Your task to perform on an android device: Open Android settings Image 0: 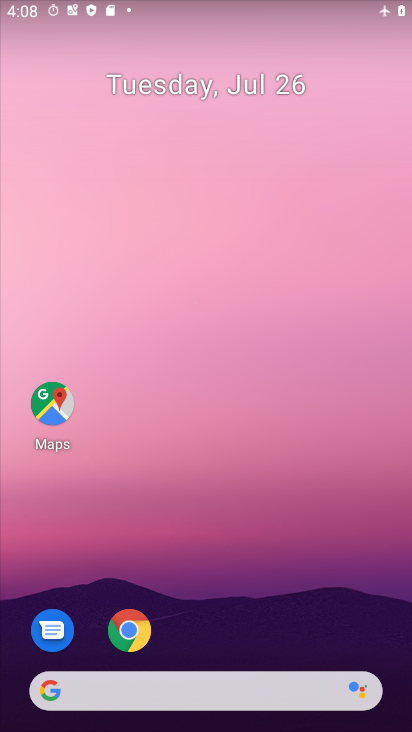
Step 0: drag from (250, 628) to (185, 25)
Your task to perform on an android device: Open Android settings Image 1: 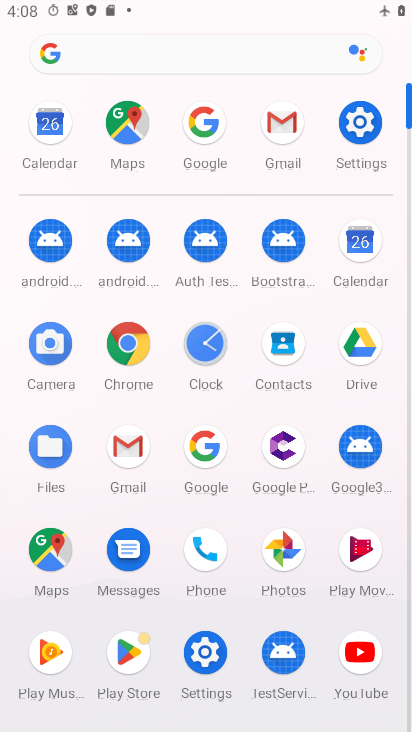
Step 1: click (370, 129)
Your task to perform on an android device: Open Android settings Image 2: 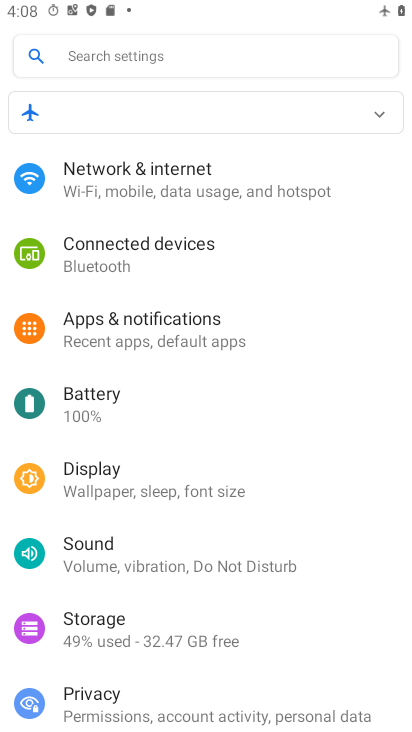
Step 2: task complete